Your task to perform on an android device: change alarm snooze length Image 0: 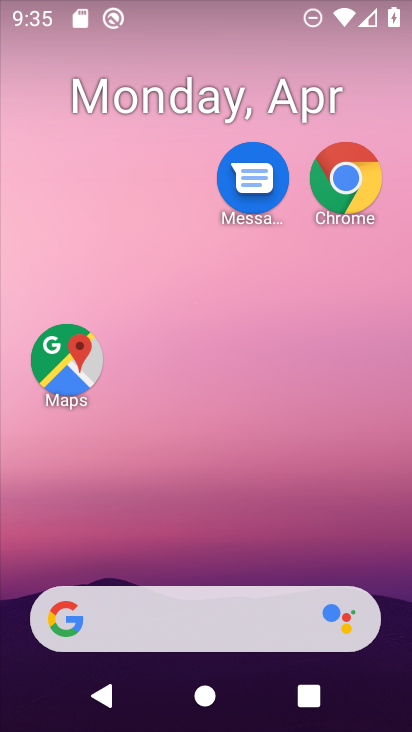
Step 0: drag from (252, 670) to (262, 138)
Your task to perform on an android device: change alarm snooze length Image 1: 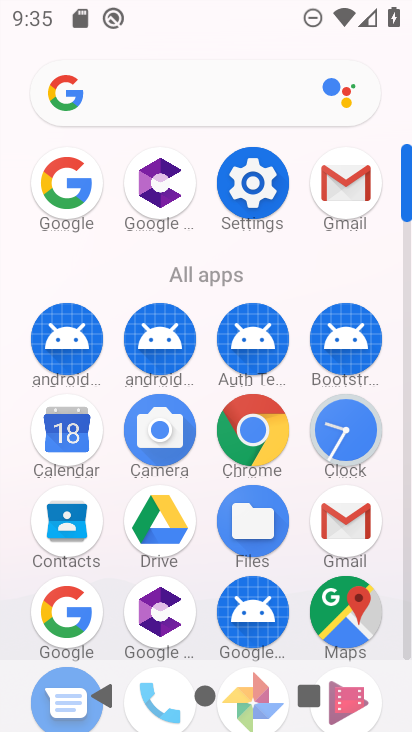
Step 1: click (359, 435)
Your task to perform on an android device: change alarm snooze length Image 2: 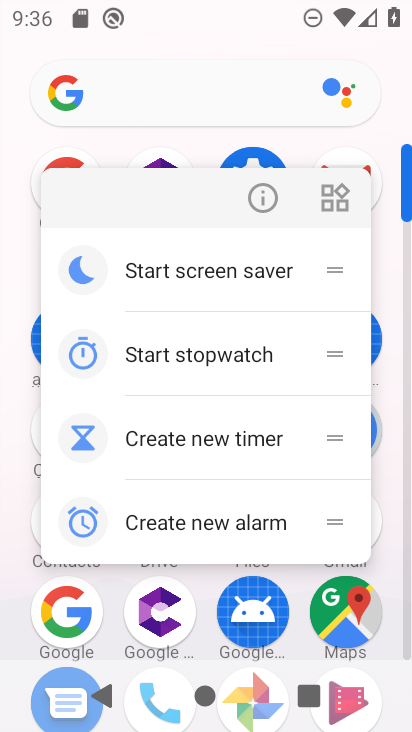
Step 2: click (384, 380)
Your task to perform on an android device: change alarm snooze length Image 3: 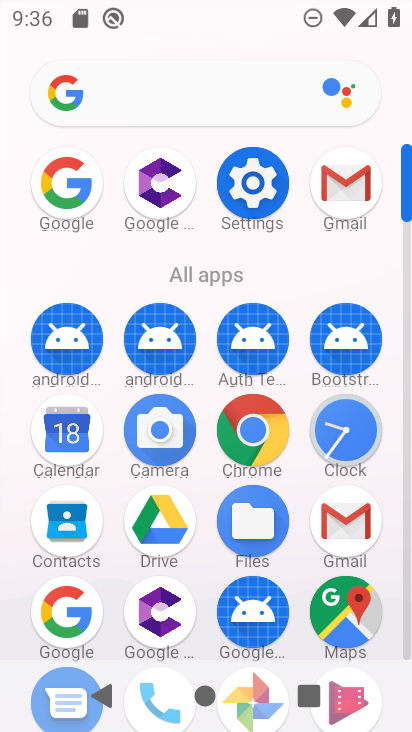
Step 3: click (344, 434)
Your task to perform on an android device: change alarm snooze length Image 4: 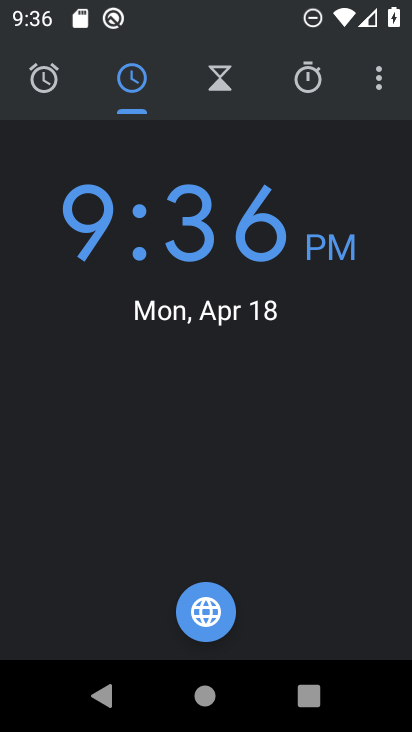
Step 4: click (381, 85)
Your task to perform on an android device: change alarm snooze length Image 5: 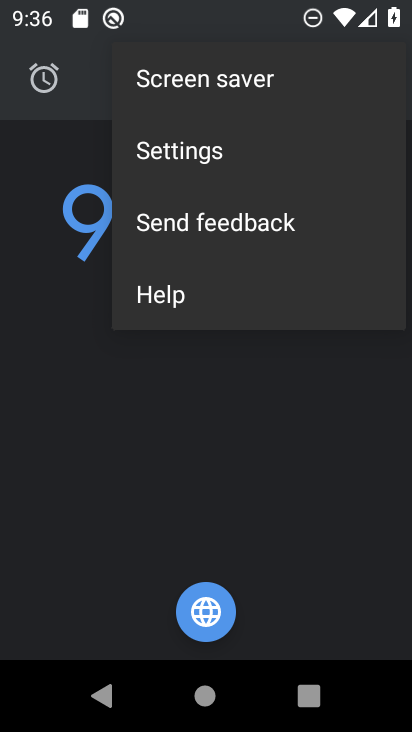
Step 5: click (215, 156)
Your task to perform on an android device: change alarm snooze length Image 6: 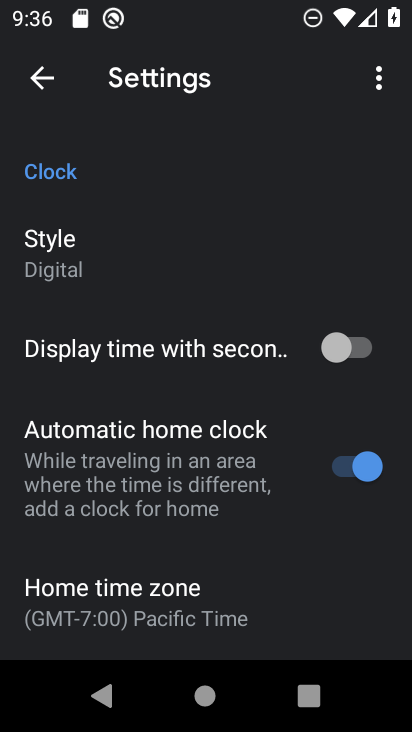
Step 6: drag from (187, 552) to (201, 423)
Your task to perform on an android device: change alarm snooze length Image 7: 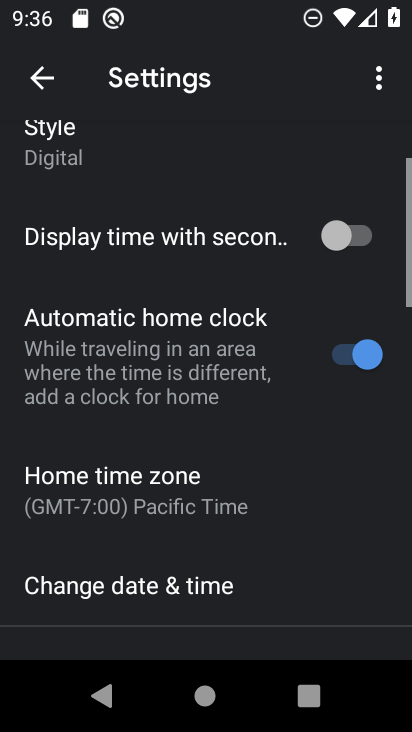
Step 7: drag from (219, 576) to (254, 319)
Your task to perform on an android device: change alarm snooze length Image 8: 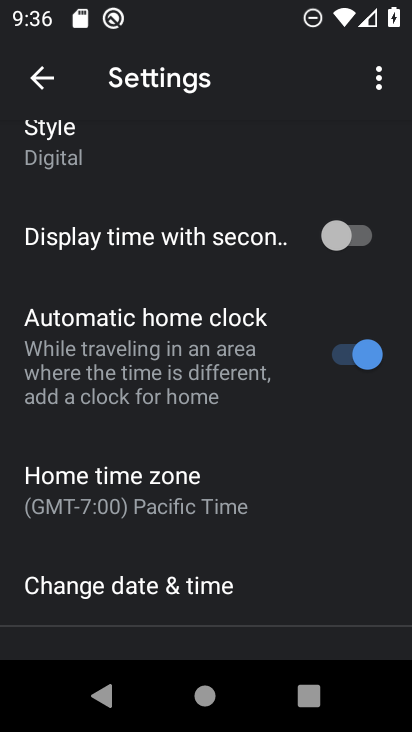
Step 8: drag from (249, 569) to (251, 341)
Your task to perform on an android device: change alarm snooze length Image 9: 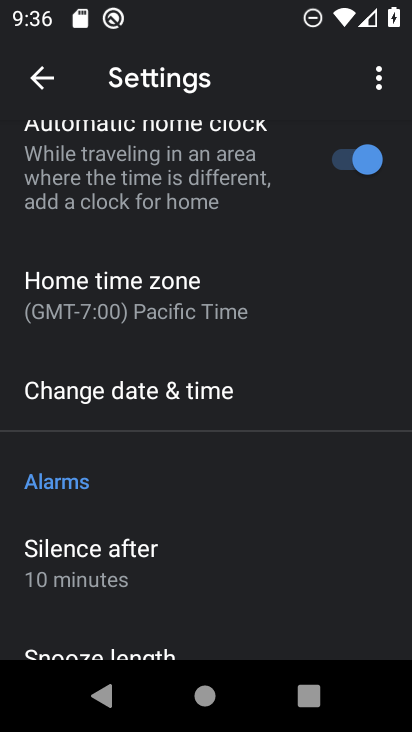
Step 9: drag from (298, 528) to (304, 306)
Your task to perform on an android device: change alarm snooze length Image 10: 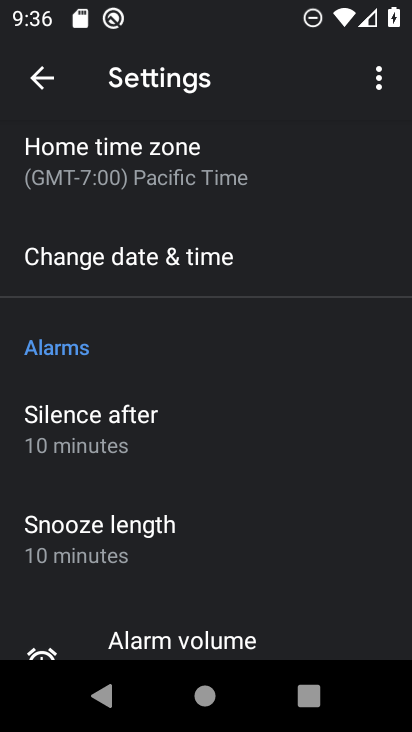
Step 10: click (143, 533)
Your task to perform on an android device: change alarm snooze length Image 11: 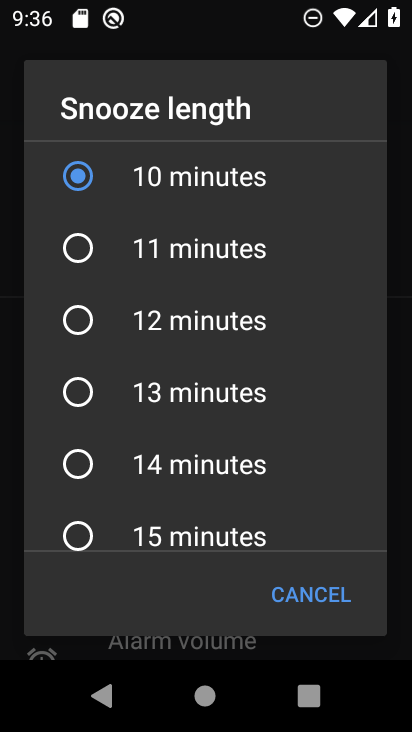
Step 11: click (88, 324)
Your task to perform on an android device: change alarm snooze length Image 12: 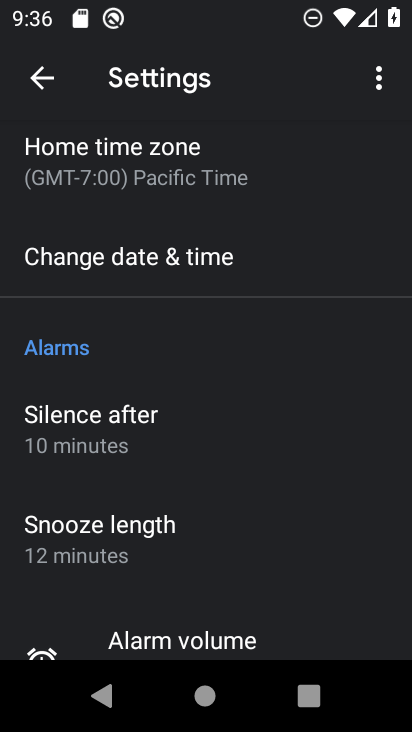
Step 12: task complete